Your task to perform on an android device: read, delete, or share a saved page in the chrome app Image 0: 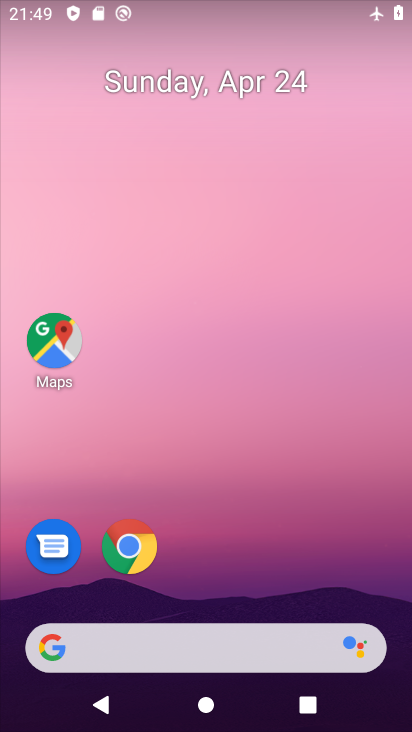
Step 0: drag from (273, 592) to (263, 266)
Your task to perform on an android device: read, delete, or share a saved page in the chrome app Image 1: 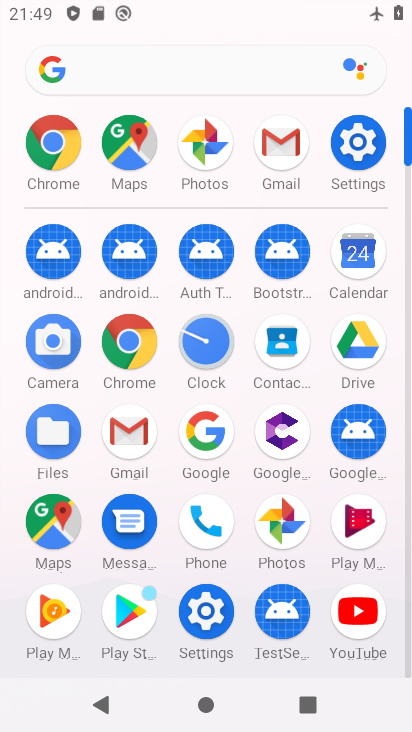
Step 1: click (127, 338)
Your task to perform on an android device: read, delete, or share a saved page in the chrome app Image 2: 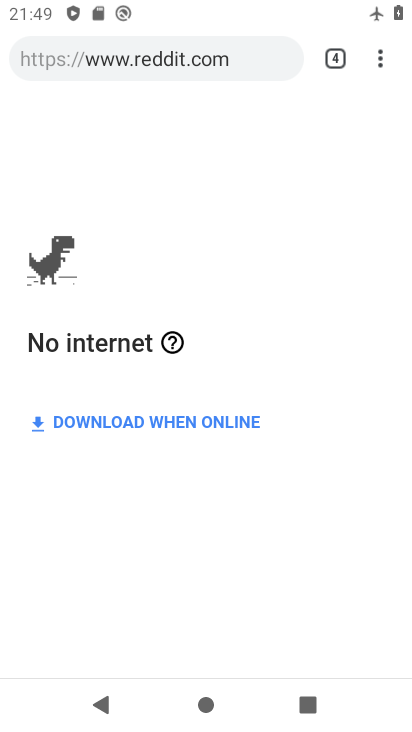
Step 2: click (369, 63)
Your task to perform on an android device: read, delete, or share a saved page in the chrome app Image 3: 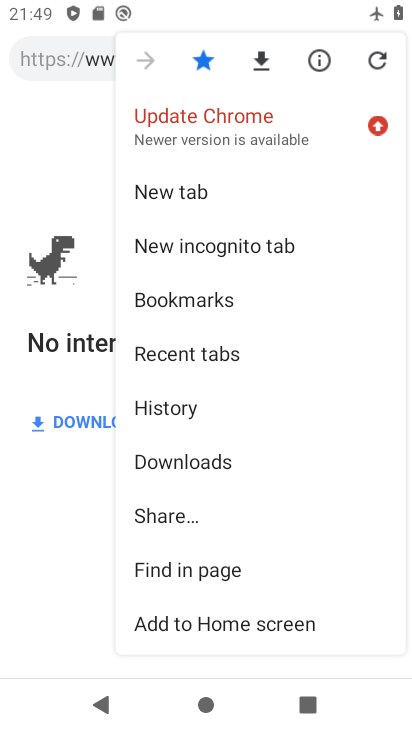
Step 3: click (192, 463)
Your task to perform on an android device: read, delete, or share a saved page in the chrome app Image 4: 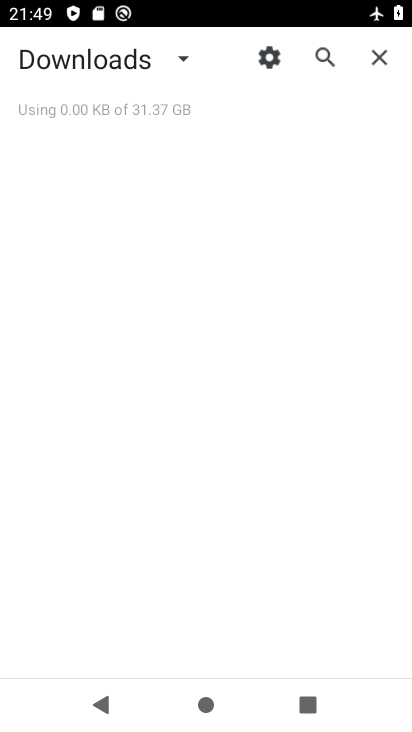
Step 4: click (183, 60)
Your task to perform on an android device: read, delete, or share a saved page in the chrome app Image 5: 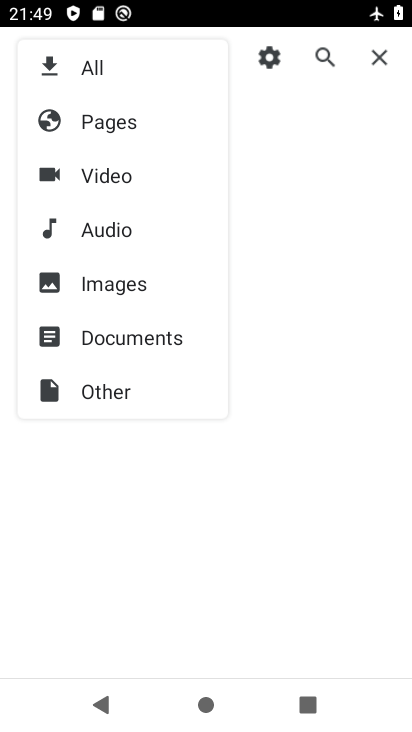
Step 5: click (124, 127)
Your task to perform on an android device: read, delete, or share a saved page in the chrome app Image 6: 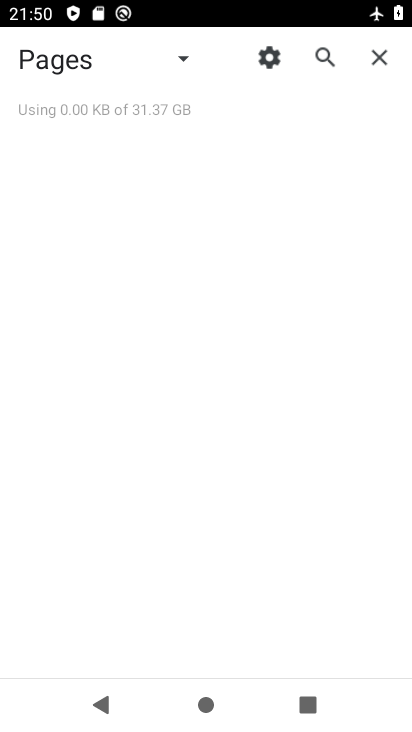
Step 6: task complete